Your task to perform on an android device: Open CNN.com Image 0: 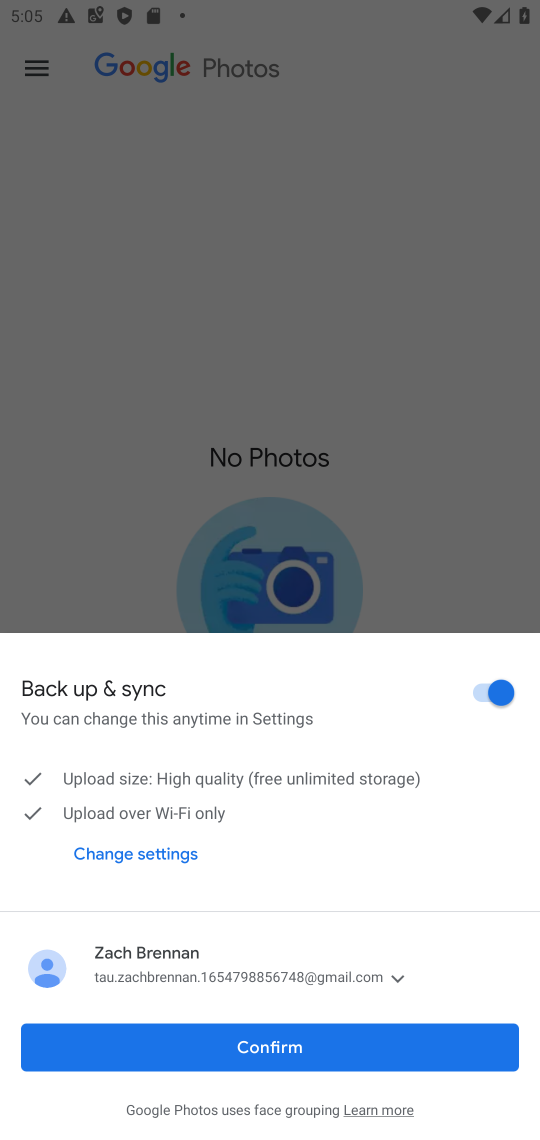
Step 0: press home button
Your task to perform on an android device: Open CNN.com Image 1: 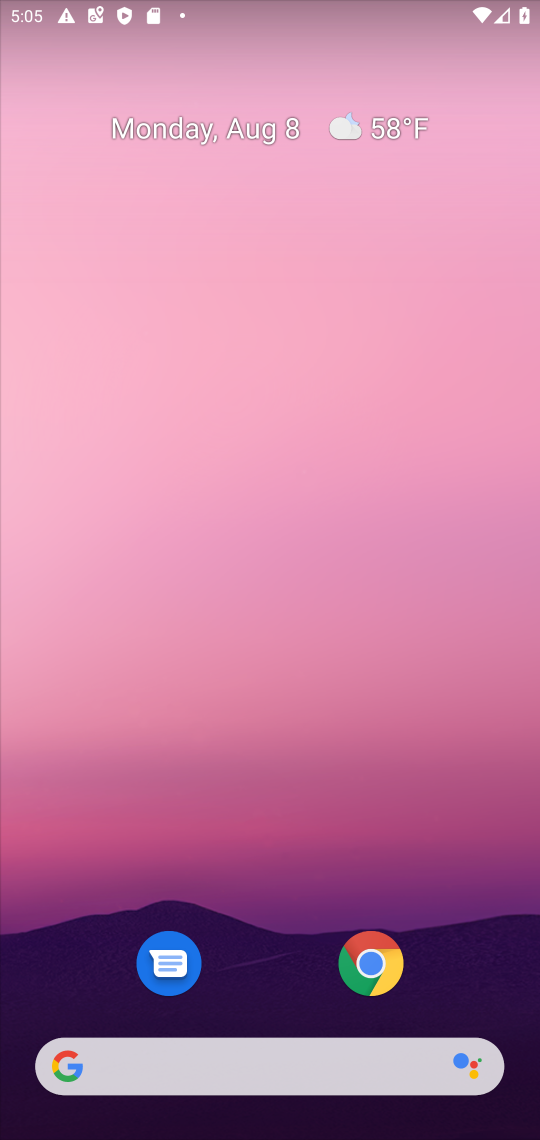
Step 1: click (379, 955)
Your task to perform on an android device: Open CNN.com Image 2: 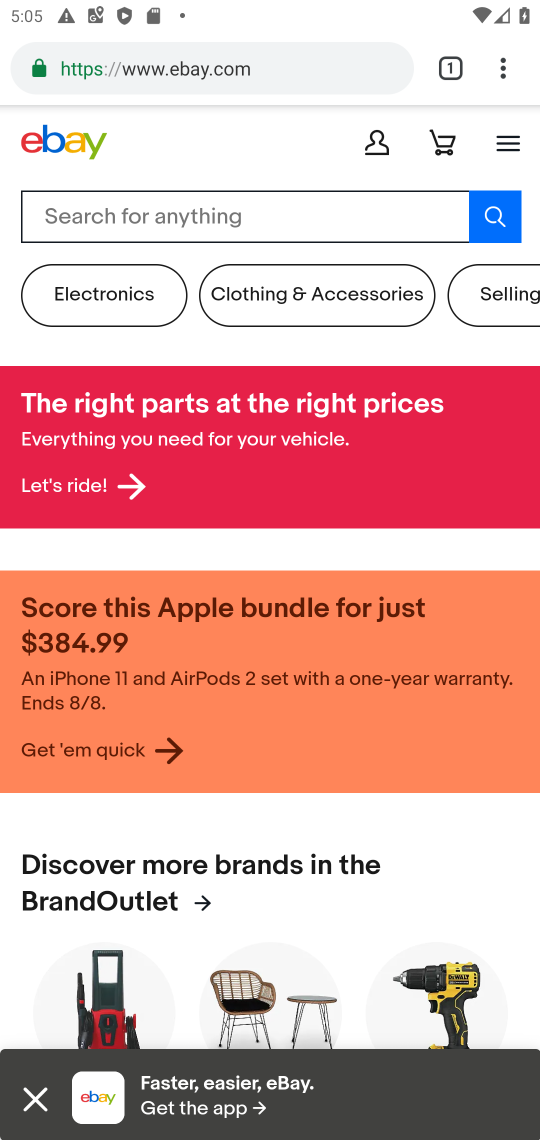
Step 2: click (192, 64)
Your task to perform on an android device: Open CNN.com Image 3: 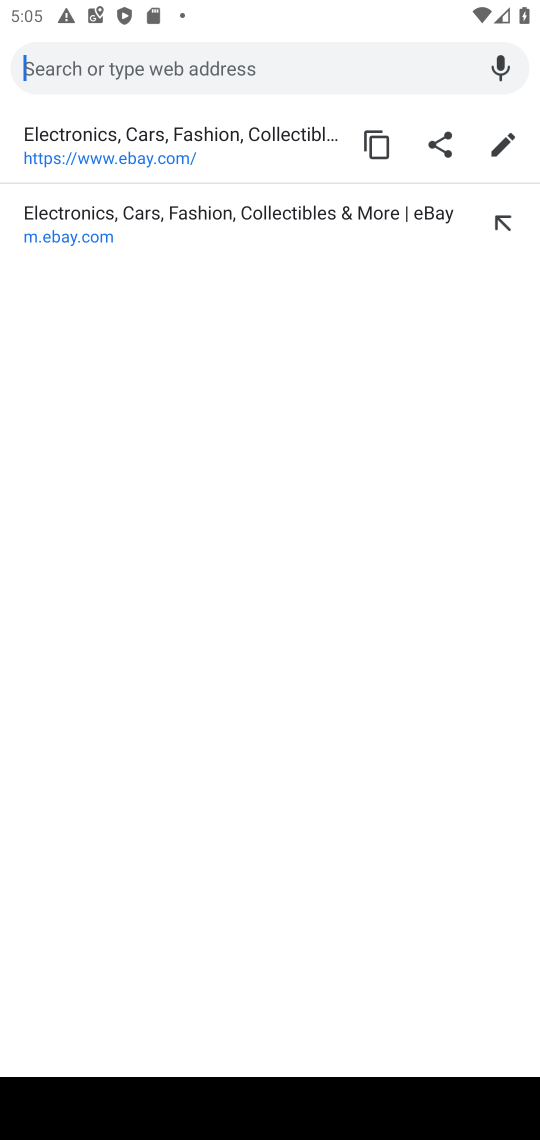
Step 3: type "cnn.com"
Your task to perform on an android device: Open CNN.com Image 4: 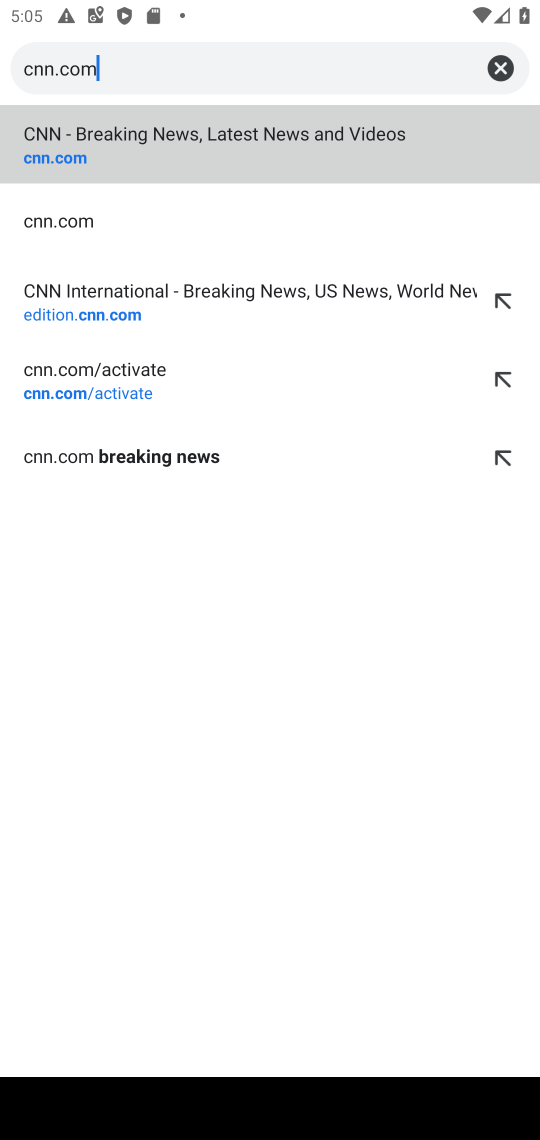
Step 4: click (92, 149)
Your task to perform on an android device: Open CNN.com Image 5: 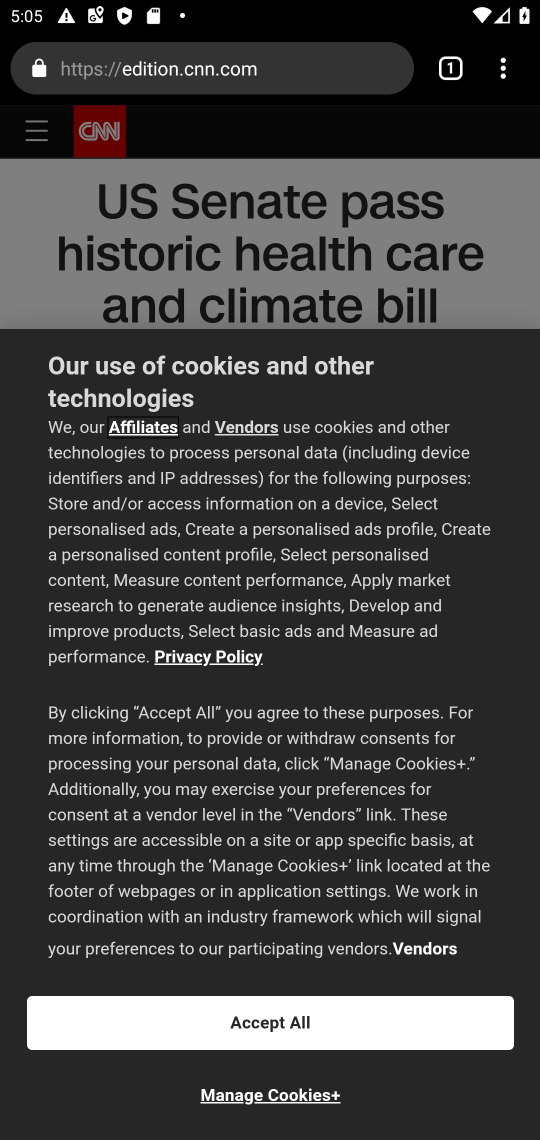
Step 5: task complete